Your task to perform on an android device: manage bookmarks in the chrome app Image 0: 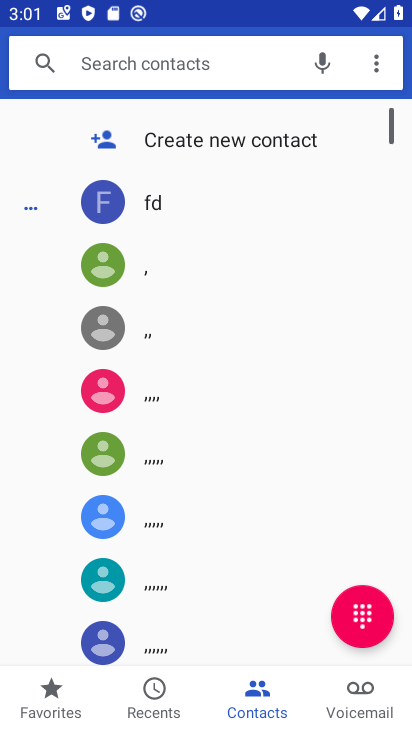
Step 0: press home button
Your task to perform on an android device: manage bookmarks in the chrome app Image 1: 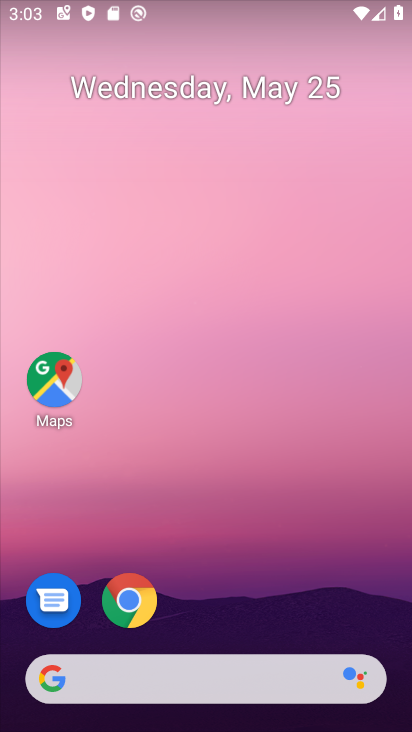
Step 1: click (125, 595)
Your task to perform on an android device: manage bookmarks in the chrome app Image 2: 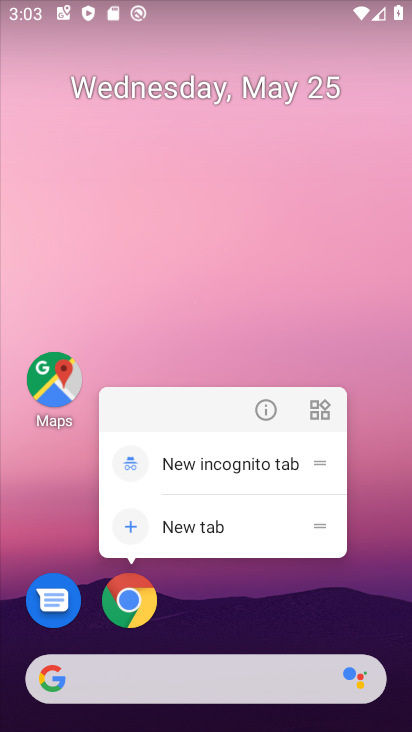
Step 2: click (137, 594)
Your task to perform on an android device: manage bookmarks in the chrome app Image 3: 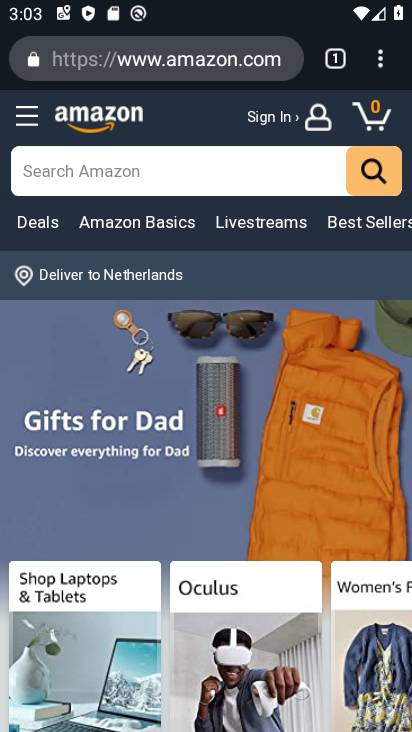
Step 3: click (381, 58)
Your task to perform on an android device: manage bookmarks in the chrome app Image 4: 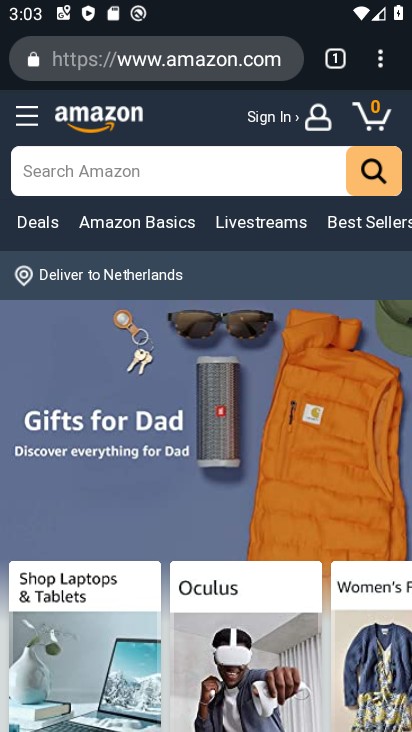
Step 4: click (378, 61)
Your task to perform on an android device: manage bookmarks in the chrome app Image 5: 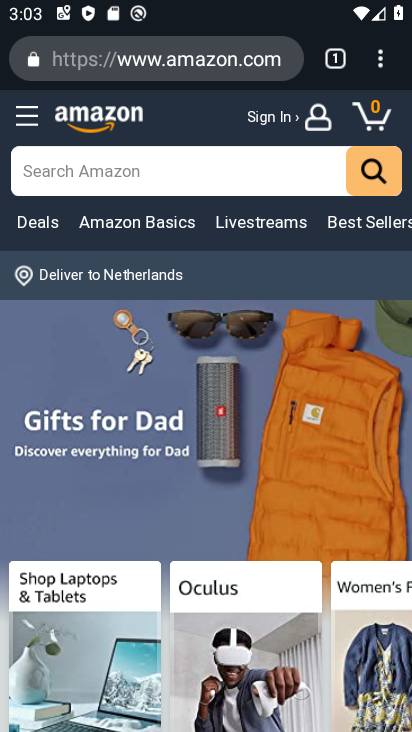
Step 5: click (378, 59)
Your task to perform on an android device: manage bookmarks in the chrome app Image 6: 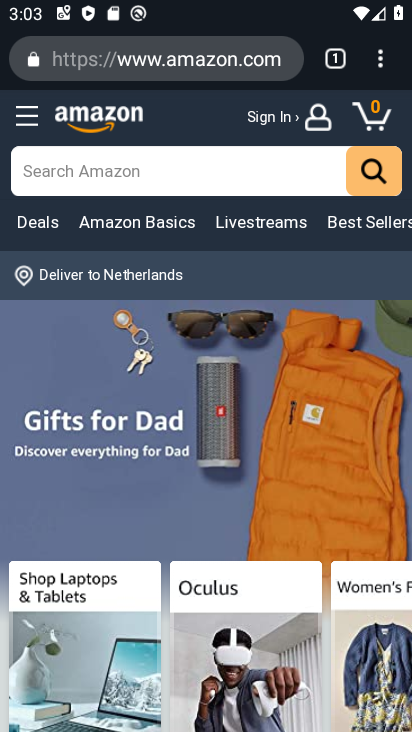
Step 6: click (377, 58)
Your task to perform on an android device: manage bookmarks in the chrome app Image 7: 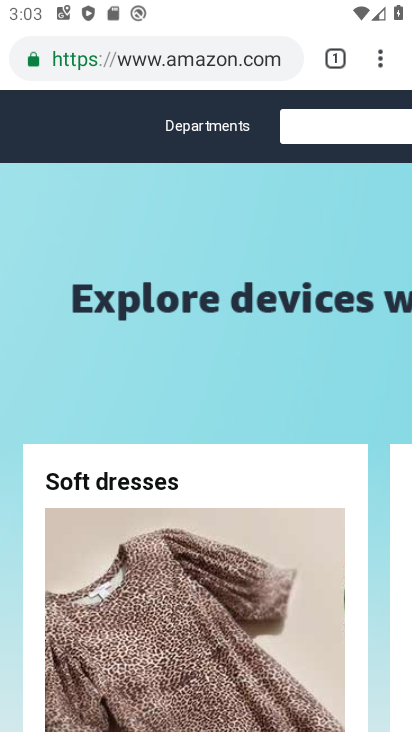
Step 7: click (380, 61)
Your task to perform on an android device: manage bookmarks in the chrome app Image 8: 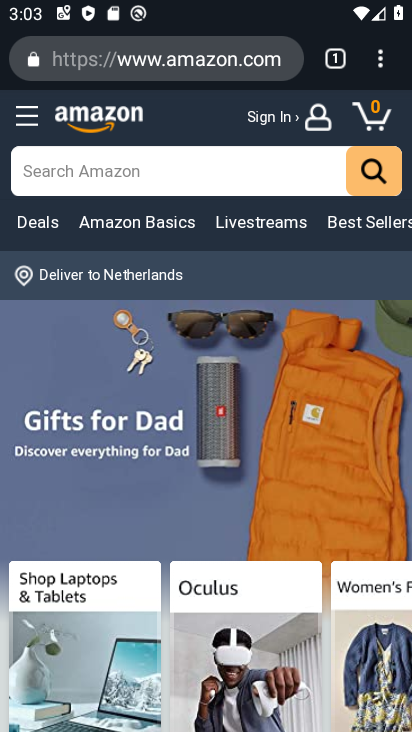
Step 8: click (388, 69)
Your task to perform on an android device: manage bookmarks in the chrome app Image 9: 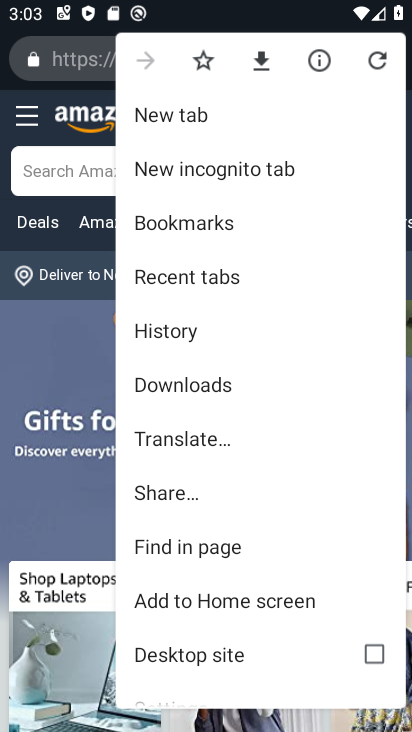
Step 9: click (206, 212)
Your task to perform on an android device: manage bookmarks in the chrome app Image 10: 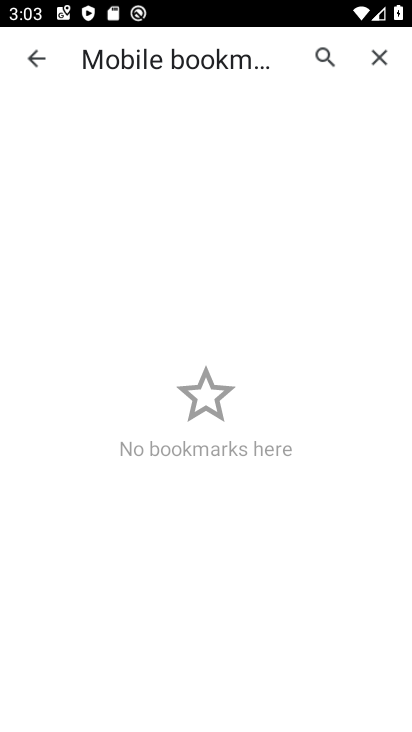
Step 10: task complete